Your task to perform on an android device: clear history in the chrome app Image 0: 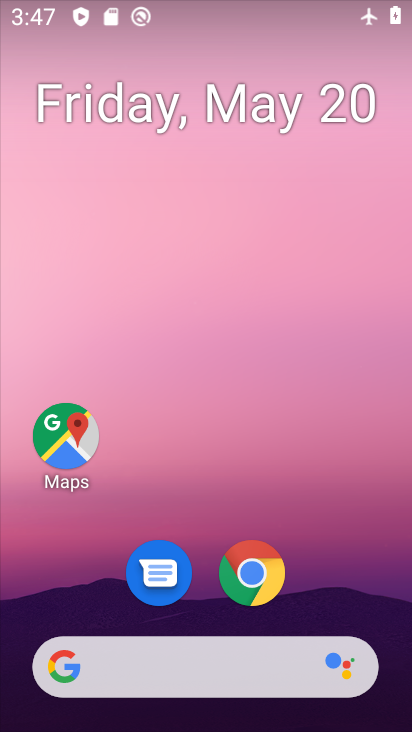
Step 0: drag from (392, 619) to (288, 146)
Your task to perform on an android device: clear history in the chrome app Image 1: 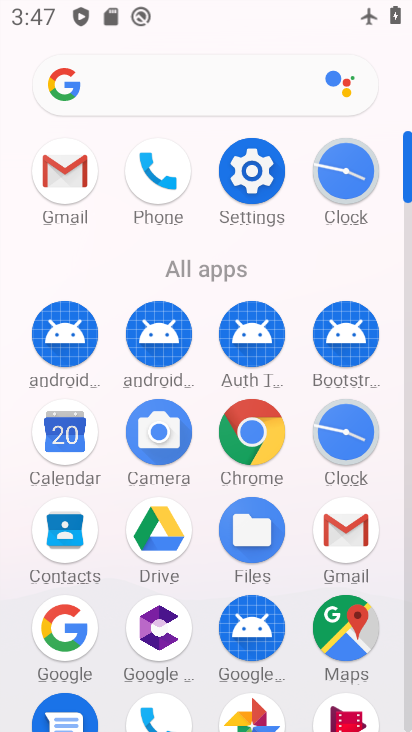
Step 1: click (405, 680)
Your task to perform on an android device: clear history in the chrome app Image 2: 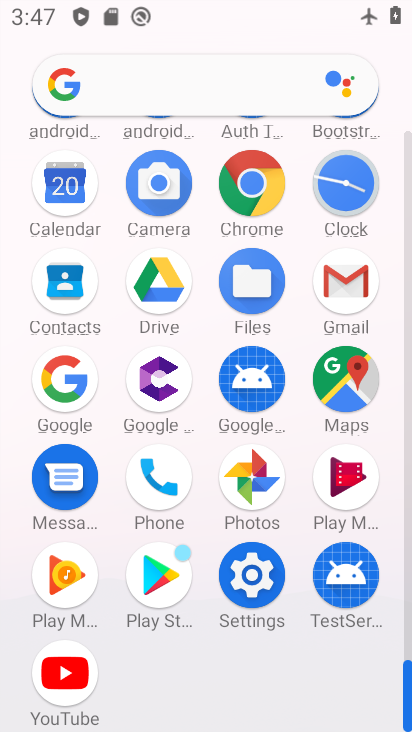
Step 2: click (249, 207)
Your task to perform on an android device: clear history in the chrome app Image 3: 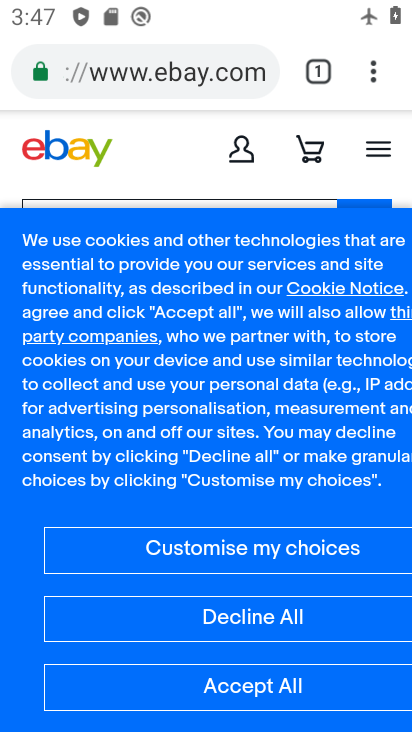
Step 3: click (381, 65)
Your task to perform on an android device: clear history in the chrome app Image 4: 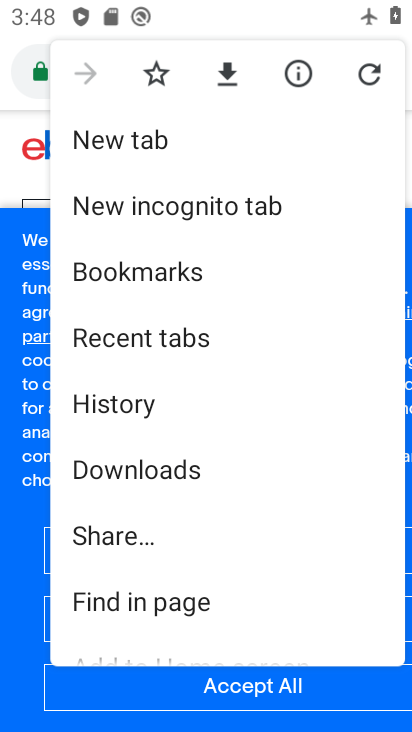
Step 4: click (294, 401)
Your task to perform on an android device: clear history in the chrome app Image 5: 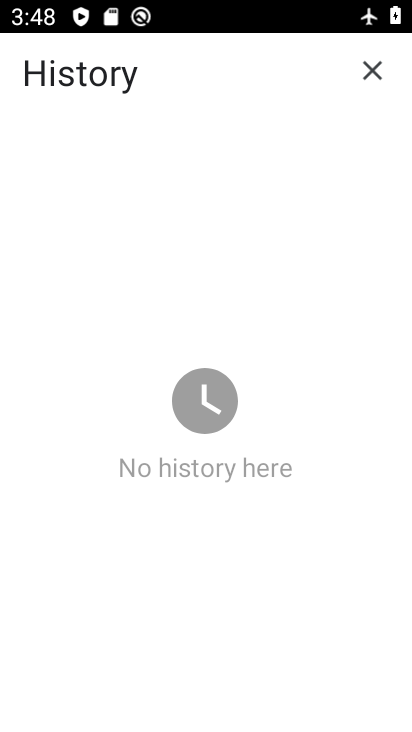
Step 5: task complete